Your task to perform on an android device: turn on priority inbox in the gmail app Image 0: 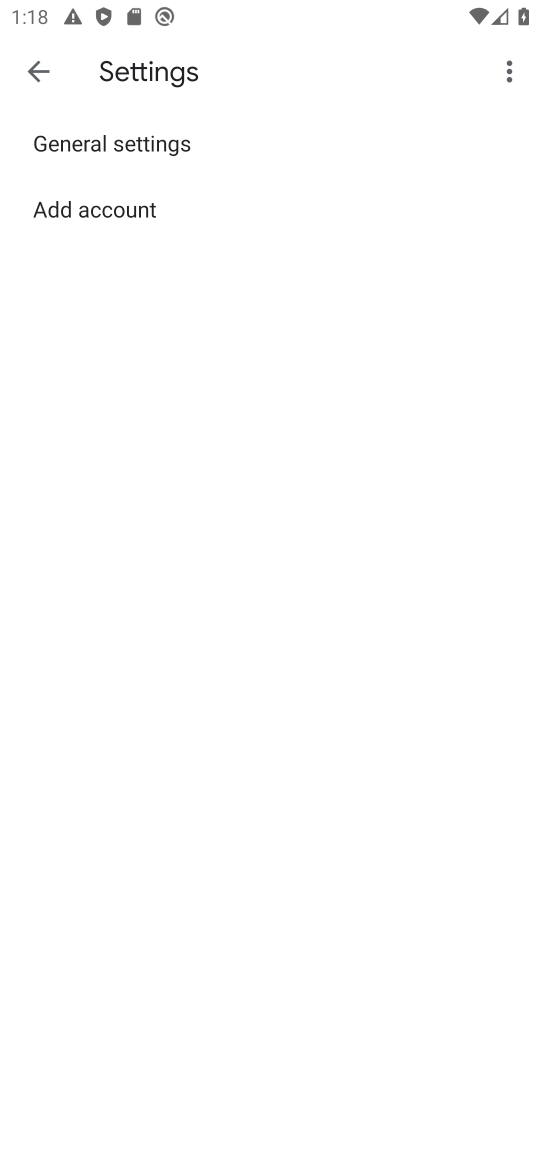
Step 0: press home button
Your task to perform on an android device: turn on priority inbox in the gmail app Image 1: 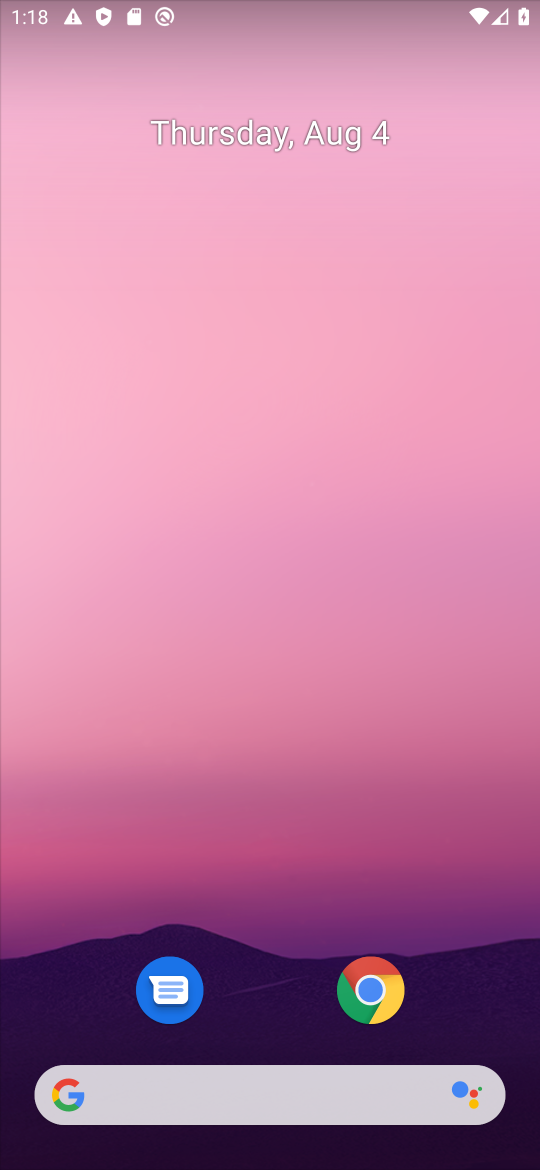
Step 1: drag from (298, 1032) to (253, 427)
Your task to perform on an android device: turn on priority inbox in the gmail app Image 2: 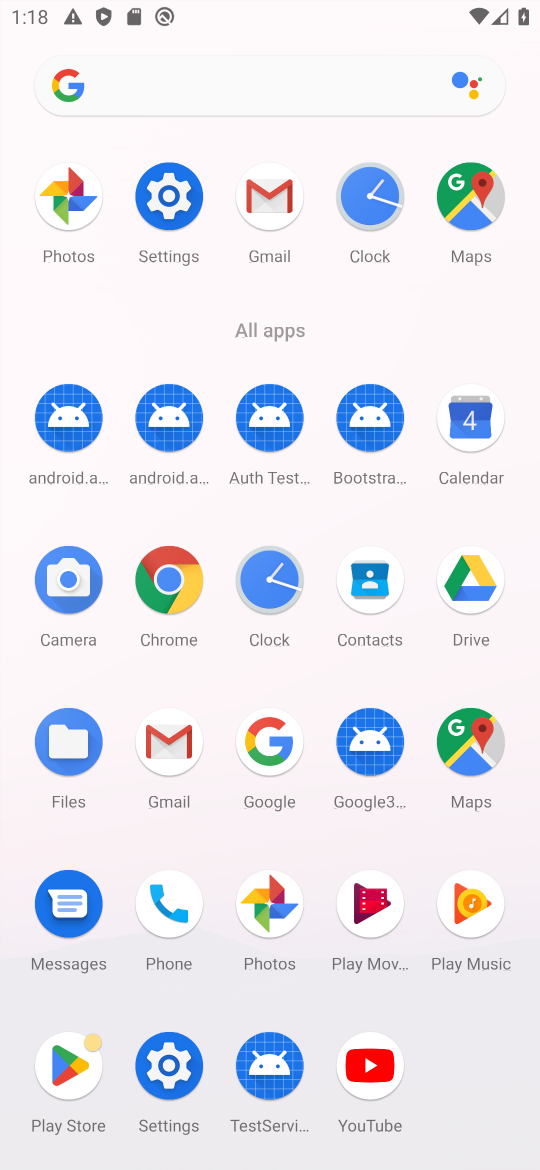
Step 2: click (286, 256)
Your task to perform on an android device: turn on priority inbox in the gmail app Image 3: 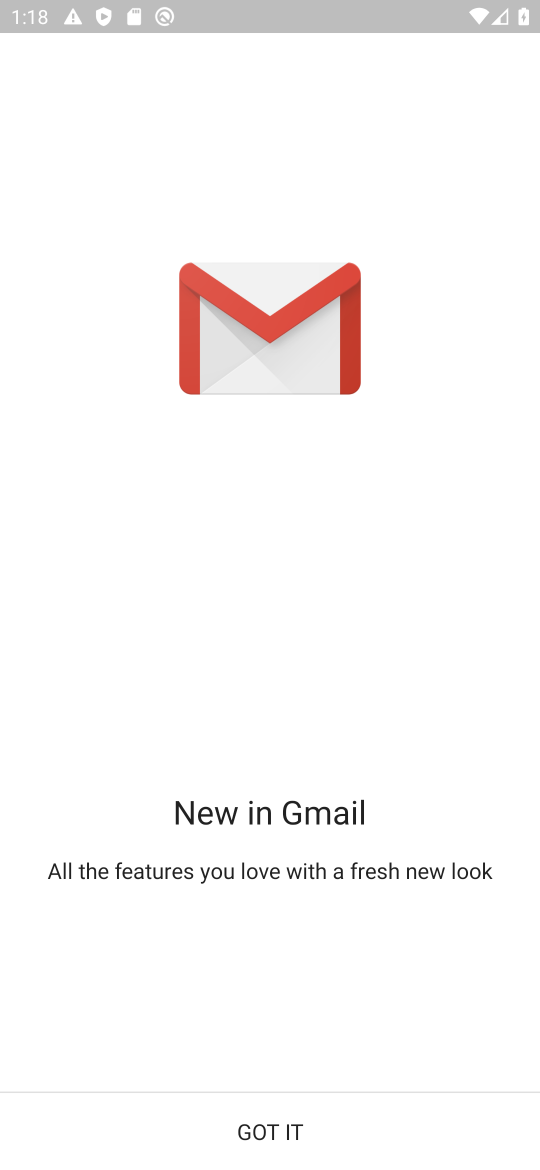
Step 3: click (246, 1114)
Your task to perform on an android device: turn on priority inbox in the gmail app Image 4: 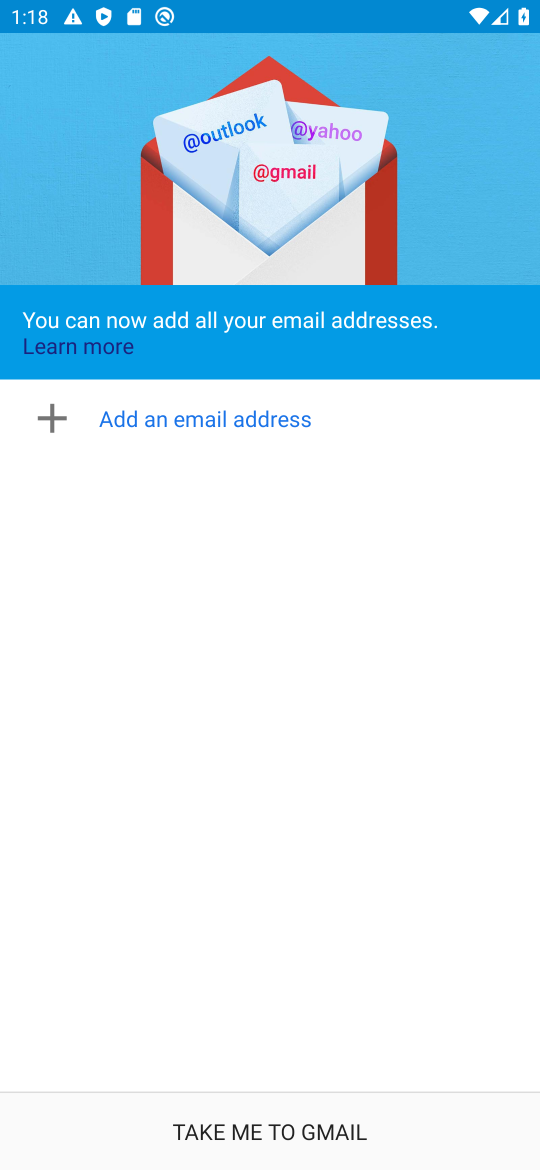
Step 4: click (273, 1104)
Your task to perform on an android device: turn on priority inbox in the gmail app Image 5: 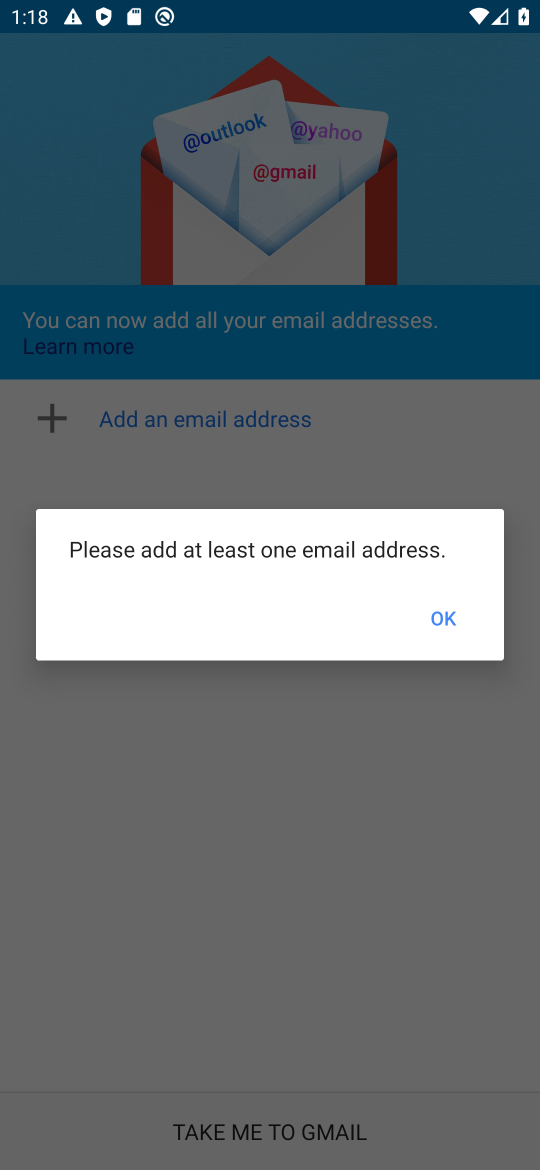
Step 5: click (456, 629)
Your task to perform on an android device: turn on priority inbox in the gmail app Image 6: 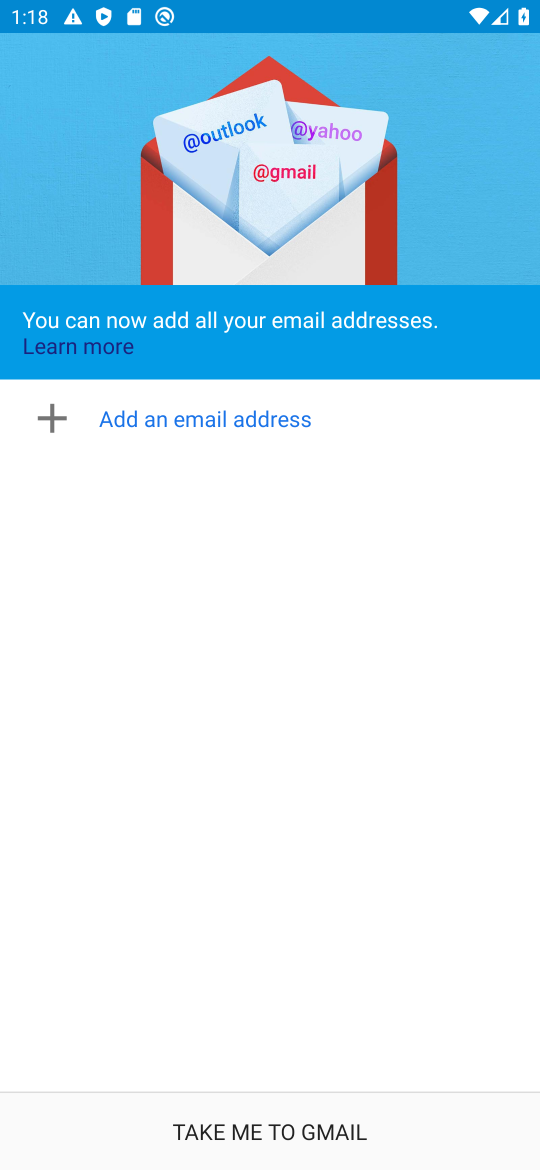
Step 6: click (361, 1132)
Your task to perform on an android device: turn on priority inbox in the gmail app Image 7: 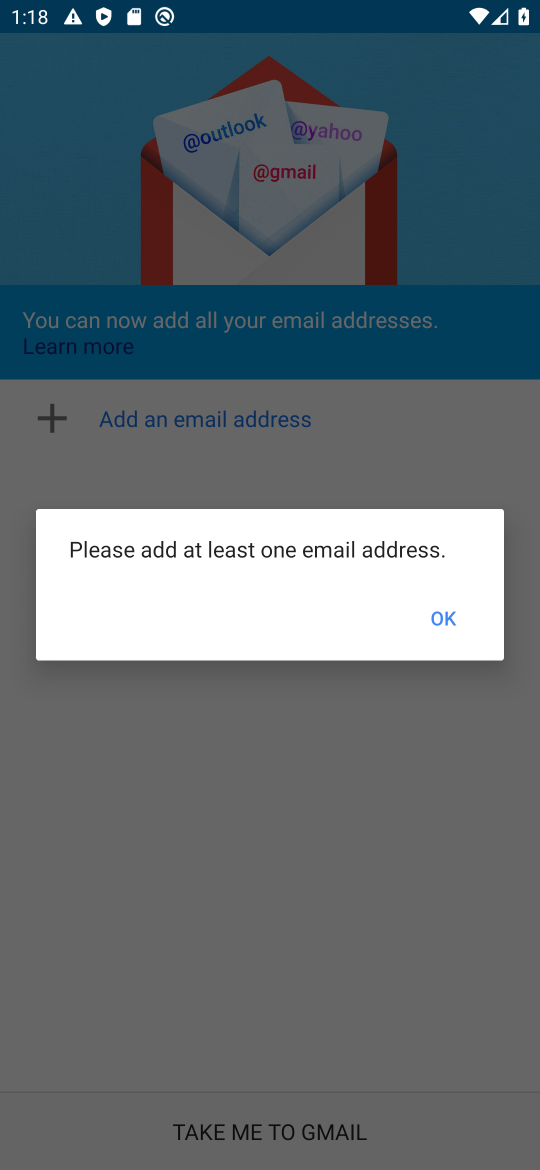
Step 7: task complete